Your task to perform on an android device: star an email in the gmail app Image 0: 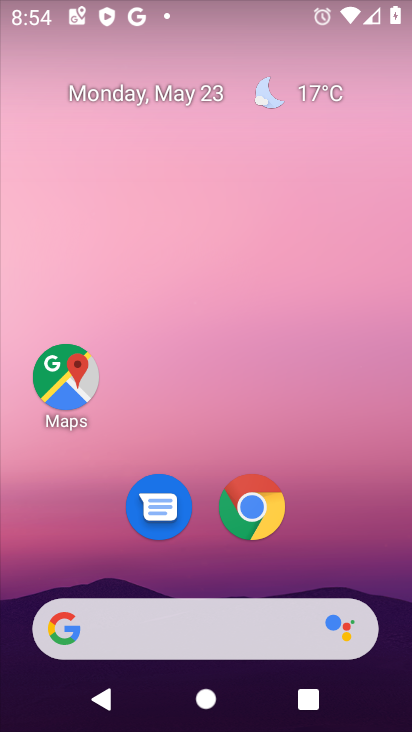
Step 0: drag from (373, 569) to (379, 9)
Your task to perform on an android device: star an email in the gmail app Image 1: 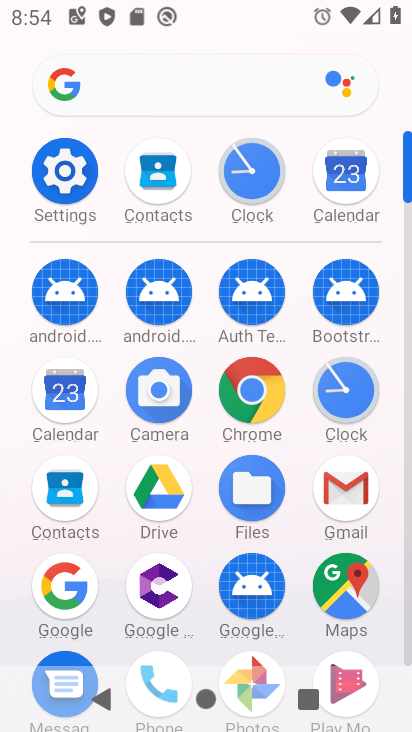
Step 1: click (349, 486)
Your task to perform on an android device: star an email in the gmail app Image 2: 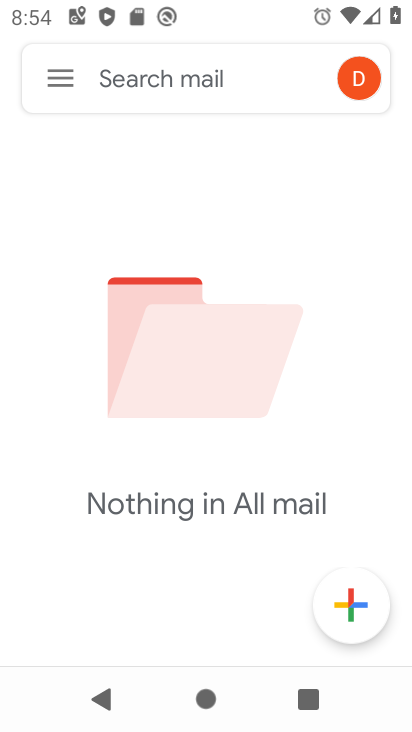
Step 2: task complete